Your task to perform on an android device: turn notification dots on Image 0: 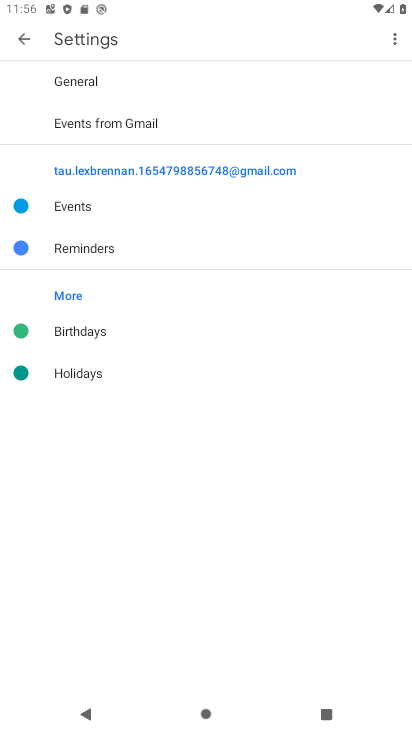
Step 0: press home button
Your task to perform on an android device: turn notification dots on Image 1: 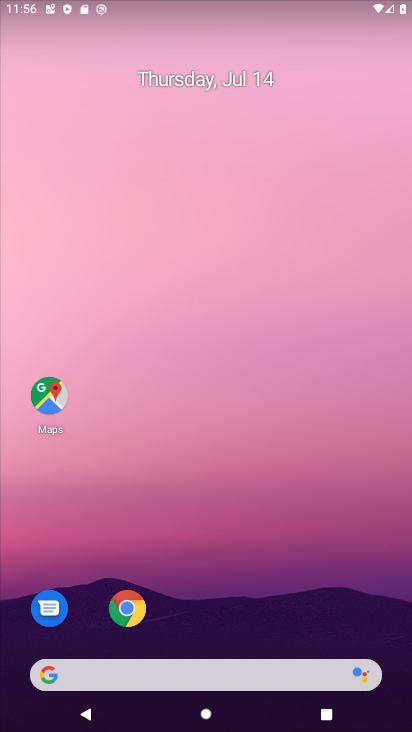
Step 1: drag from (198, 632) to (268, 26)
Your task to perform on an android device: turn notification dots on Image 2: 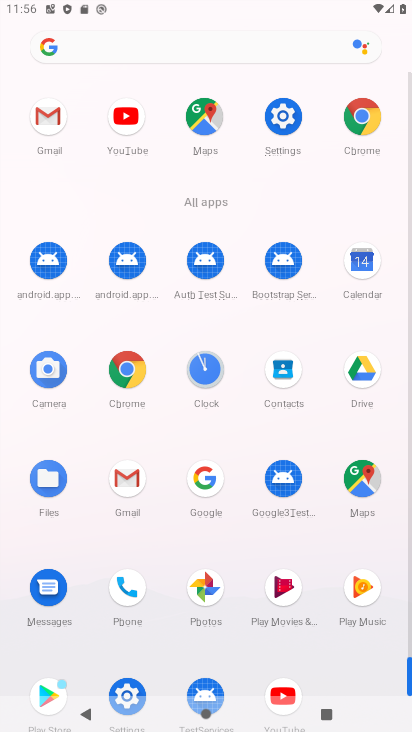
Step 2: click (281, 129)
Your task to perform on an android device: turn notification dots on Image 3: 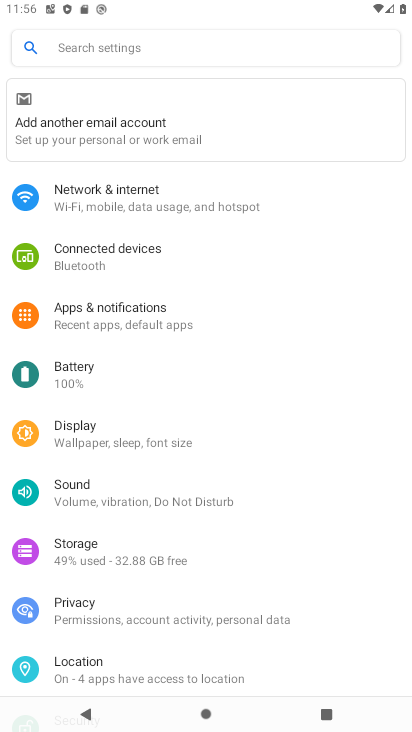
Step 3: click (123, 311)
Your task to perform on an android device: turn notification dots on Image 4: 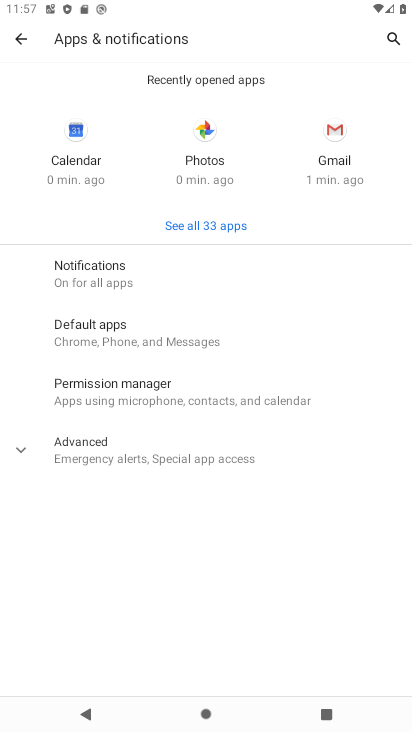
Step 4: click (89, 266)
Your task to perform on an android device: turn notification dots on Image 5: 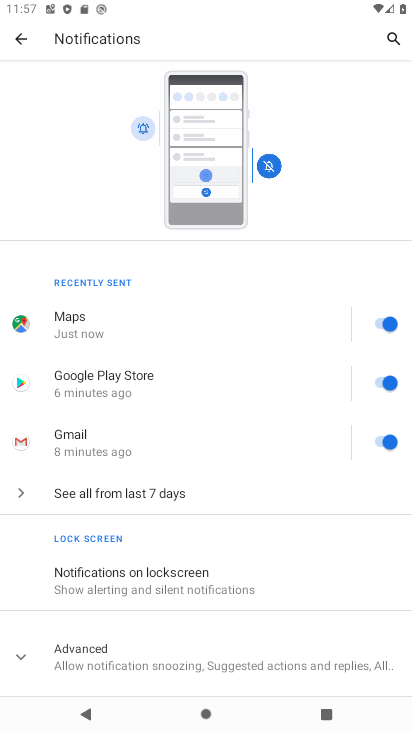
Step 5: drag from (184, 561) to (376, 157)
Your task to perform on an android device: turn notification dots on Image 6: 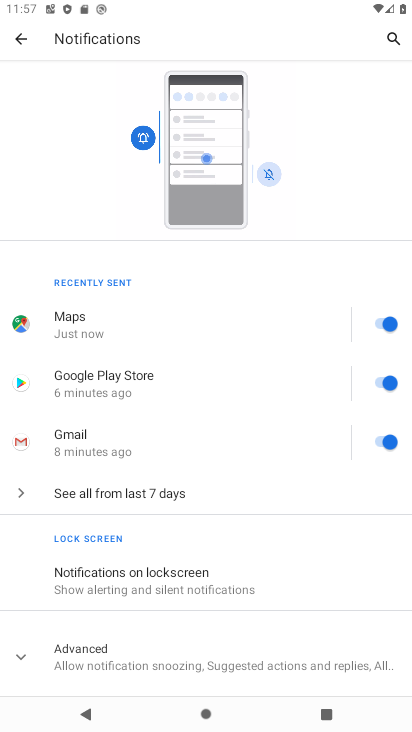
Step 6: click (114, 657)
Your task to perform on an android device: turn notification dots on Image 7: 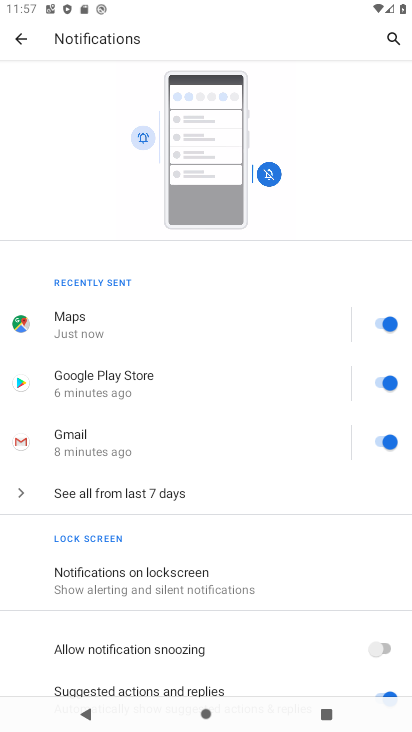
Step 7: task complete